Your task to perform on an android device: Open notification settings Image 0: 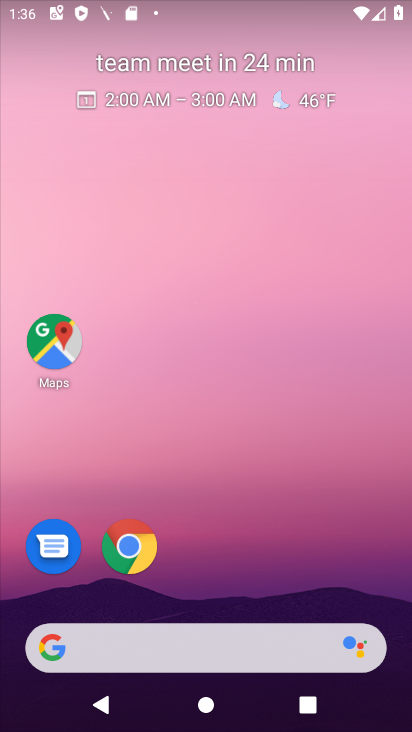
Step 0: drag from (395, 629) to (313, 139)
Your task to perform on an android device: Open notification settings Image 1: 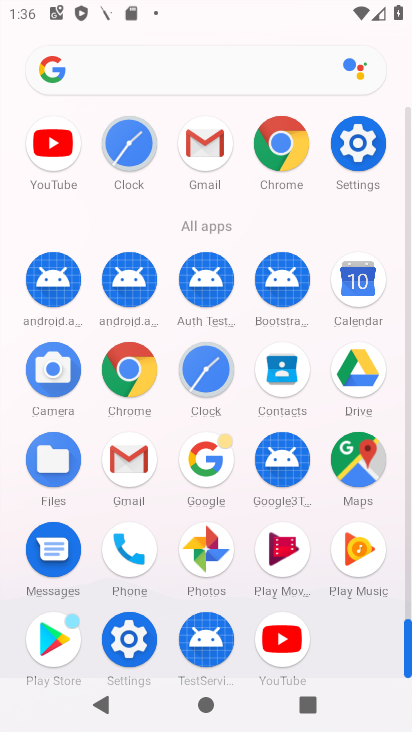
Step 1: click (129, 642)
Your task to perform on an android device: Open notification settings Image 2: 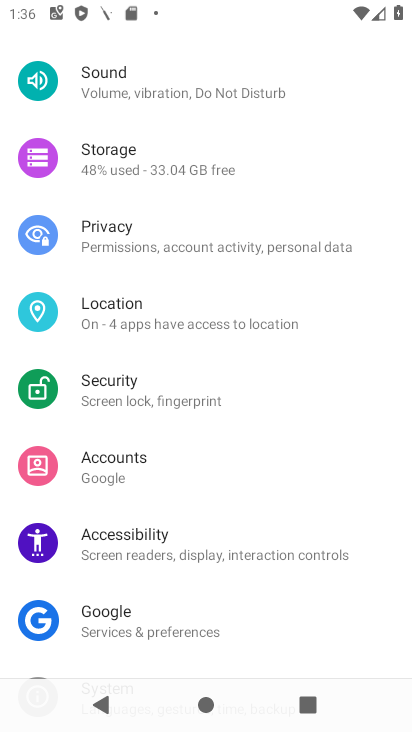
Step 2: drag from (360, 168) to (385, 579)
Your task to perform on an android device: Open notification settings Image 3: 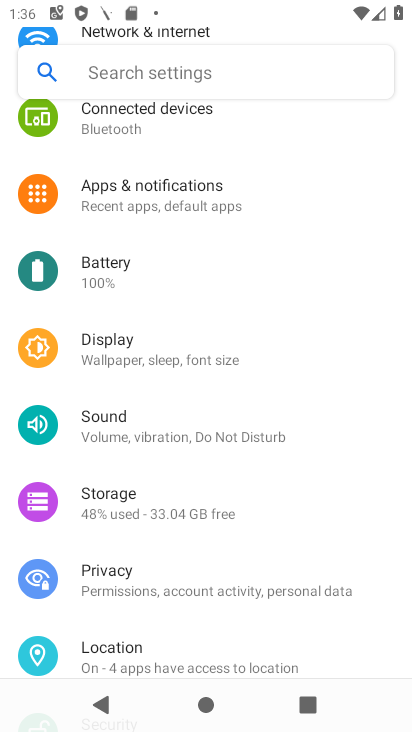
Step 3: click (124, 195)
Your task to perform on an android device: Open notification settings Image 4: 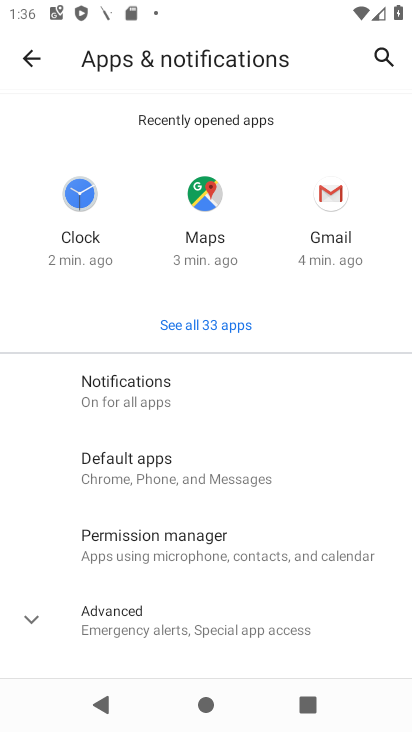
Step 4: click (94, 391)
Your task to perform on an android device: Open notification settings Image 5: 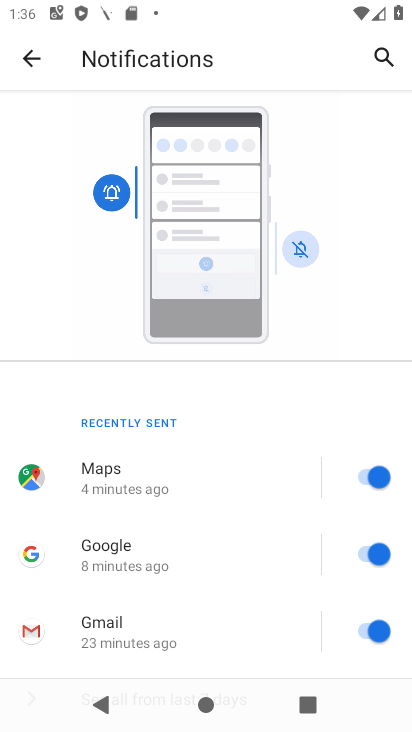
Step 5: drag from (307, 648) to (224, 62)
Your task to perform on an android device: Open notification settings Image 6: 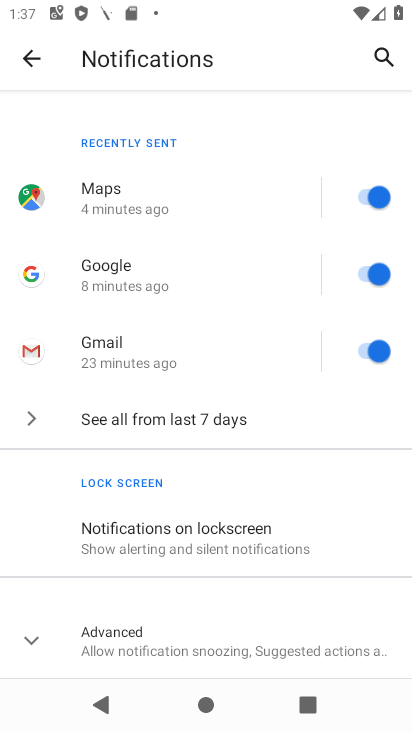
Step 6: click (35, 640)
Your task to perform on an android device: Open notification settings Image 7: 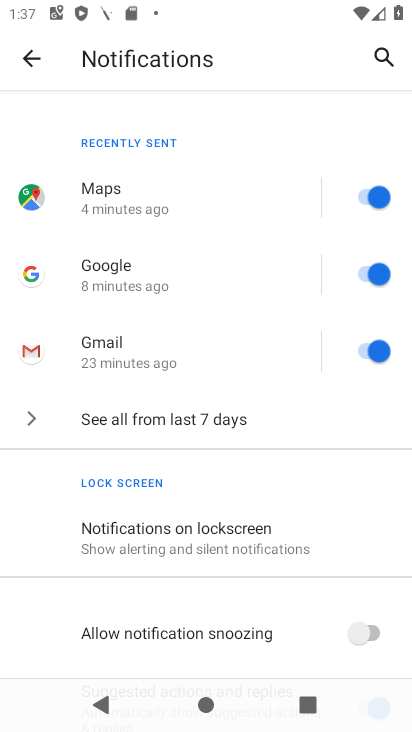
Step 7: task complete